Your task to perform on an android device: turn off sleep mode Image 0: 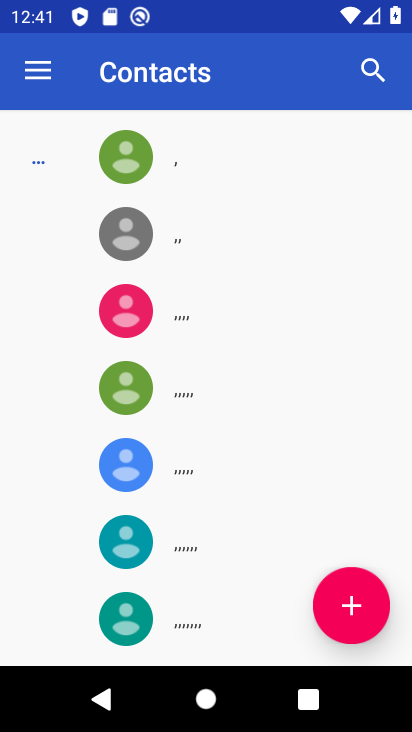
Step 0: press home button
Your task to perform on an android device: turn off sleep mode Image 1: 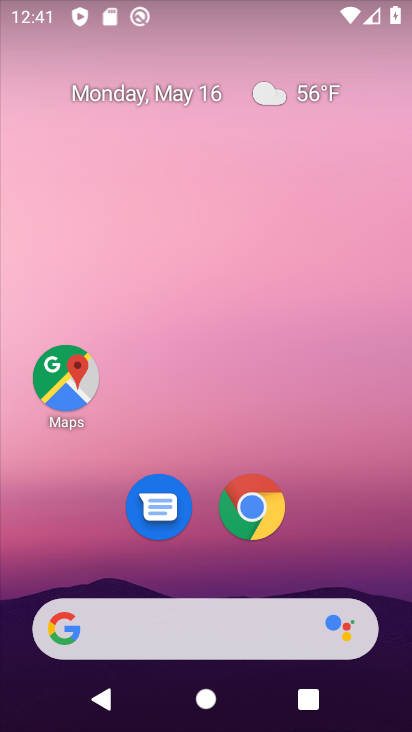
Step 1: drag from (201, 562) to (205, 184)
Your task to perform on an android device: turn off sleep mode Image 2: 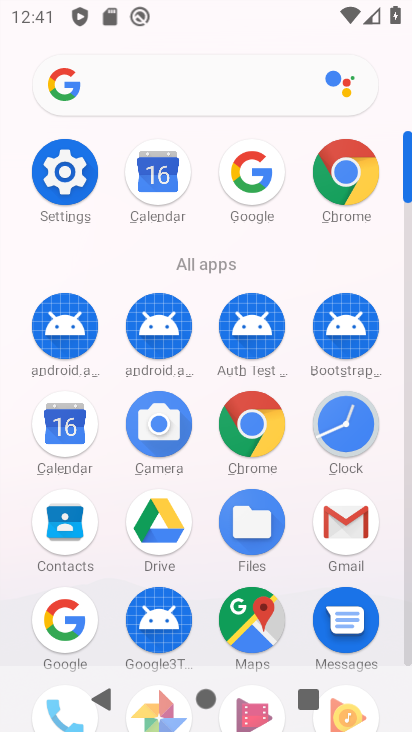
Step 2: click (59, 168)
Your task to perform on an android device: turn off sleep mode Image 3: 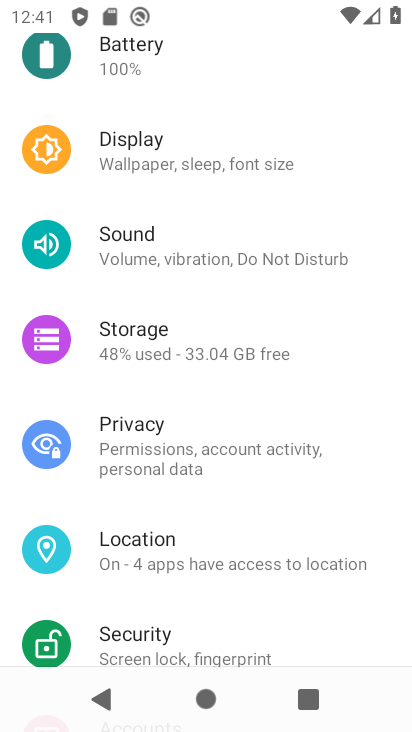
Step 3: drag from (208, 219) to (239, 495)
Your task to perform on an android device: turn off sleep mode Image 4: 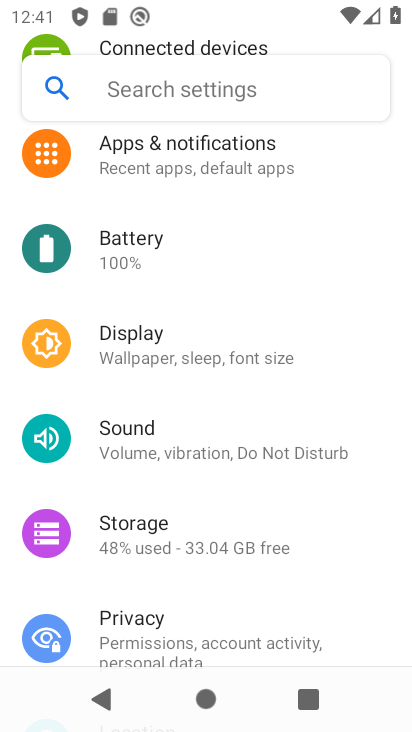
Step 4: drag from (198, 227) to (248, 533)
Your task to perform on an android device: turn off sleep mode Image 5: 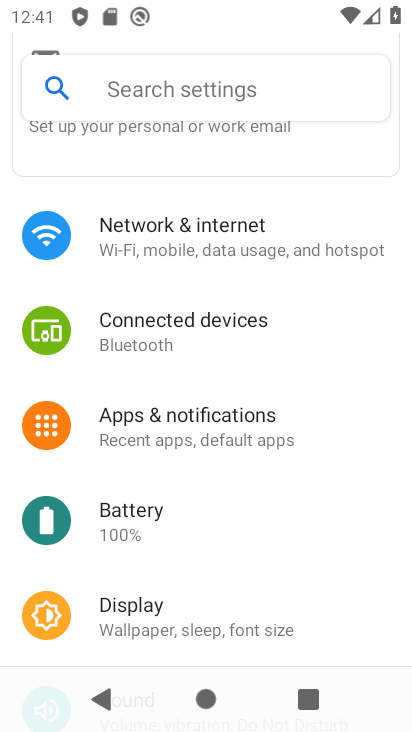
Step 5: drag from (218, 268) to (324, 294)
Your task to perform on an android device: turn off sleep mode Image 6: 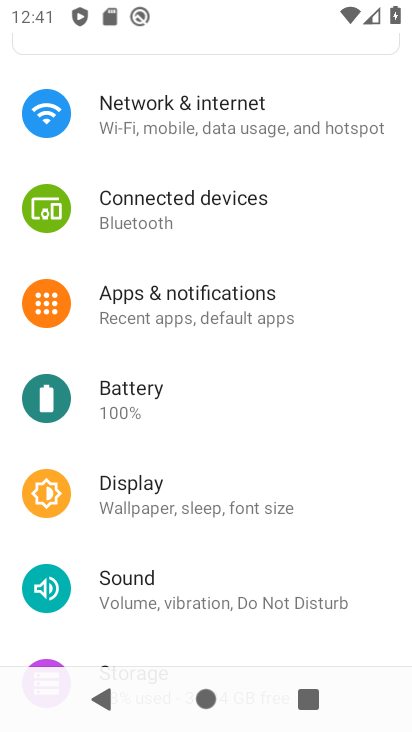
Step 6: click (213, 485)
Your task to perform on an android device: turn off sleep mode Image 7: 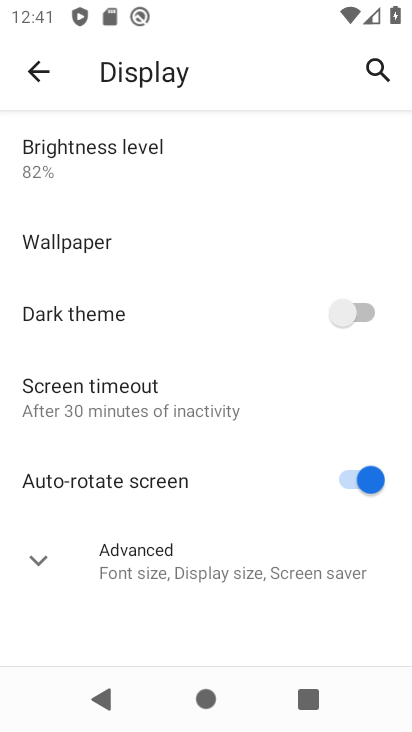
Step 7: click (144, 408)
Your task to perform on an android device: turn off sleep mode Image 8: 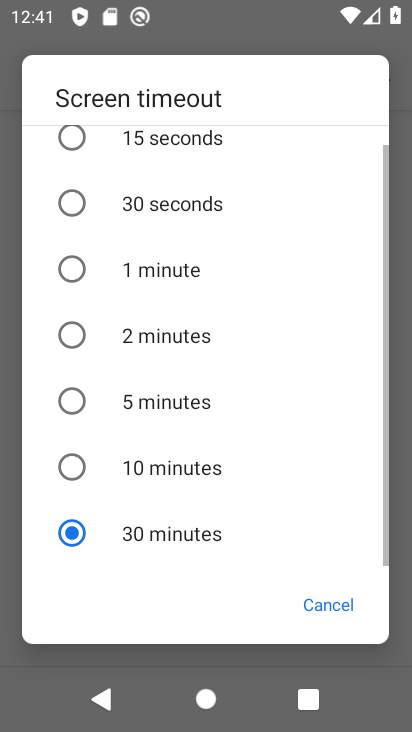
Step 8: click (160, 328)
Your task to perform on an android device: turn off sleep mode Image 9: 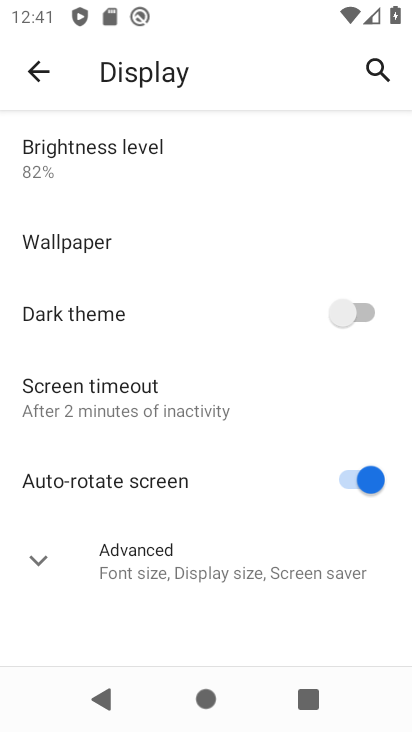
Step 9: task complete